Your task to perform on an android device: delete a single message in the gmail app Image 0: 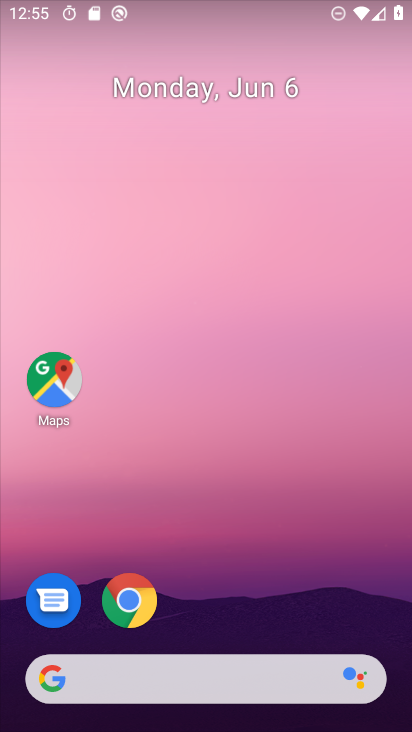
Step 0: drag from (221, 608) to (188, 278)
Your task to perform on an android device: delete a single message in the gmail app Image 1: 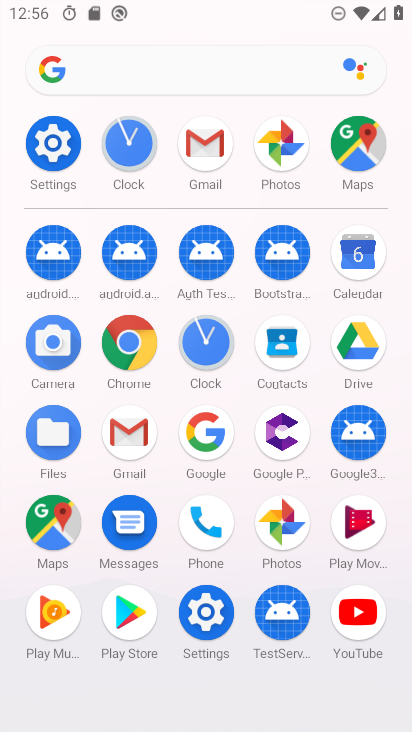
Step 1: click (195, 137)
Your task to perform on an android device: delete a single message in the gmail app Image 2: 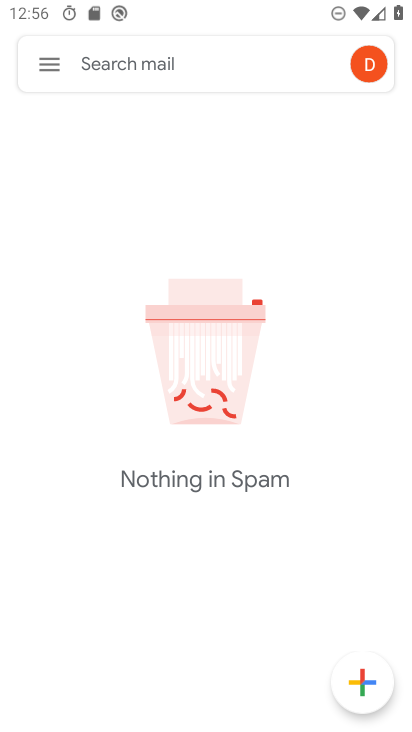
Step 2: click (51, 63)
Your task to perform on an android device: delete a single message in the gmail app Image 3: 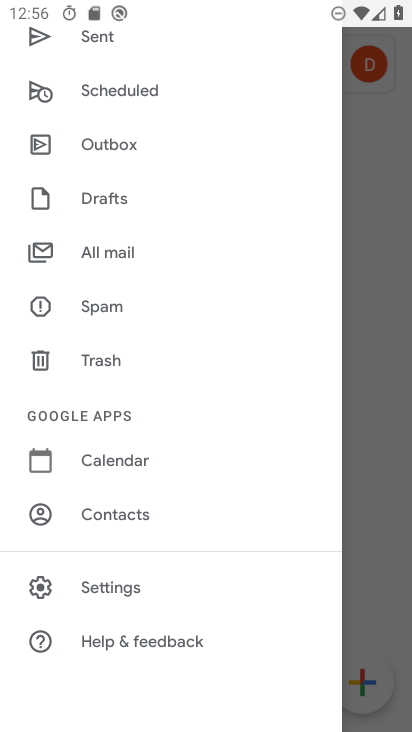
Step 3: drag from (102, 192) to (124, 553)
Your task to perform on an android device: delete a single message in the gmail app Image 4: 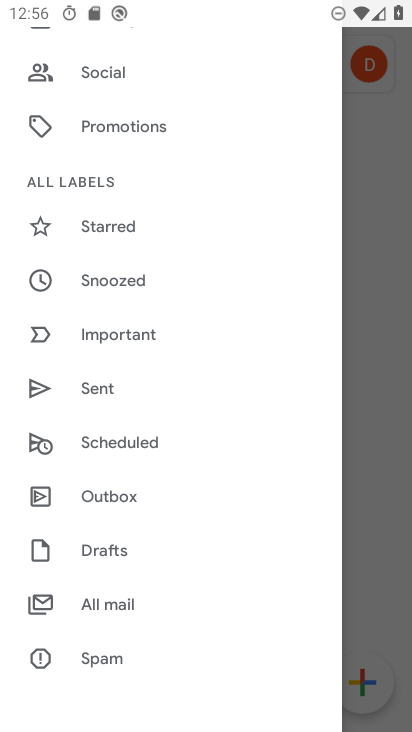
Step 4: drag from (149, 181) to (186, 257)
Your task to perform on an android device: delete a single message in the gmail app Image 5: 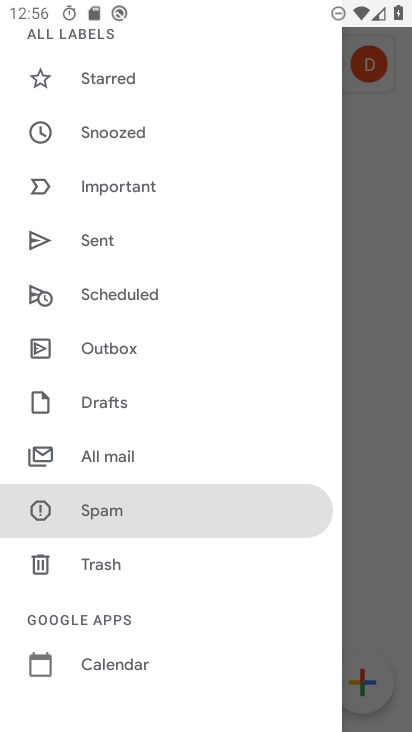
Step 5: click (120, 448)
Your task to perform on an android device: delete a single message in the gmail app Image 6: 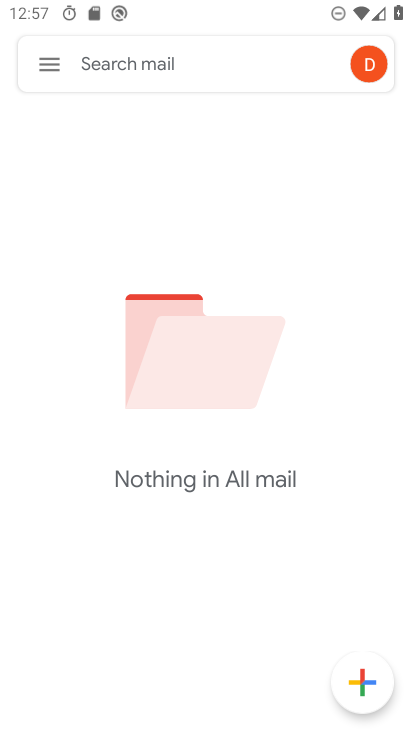
Step 6: task complete